Your task to perform on an android device: Open network settings Image 0: 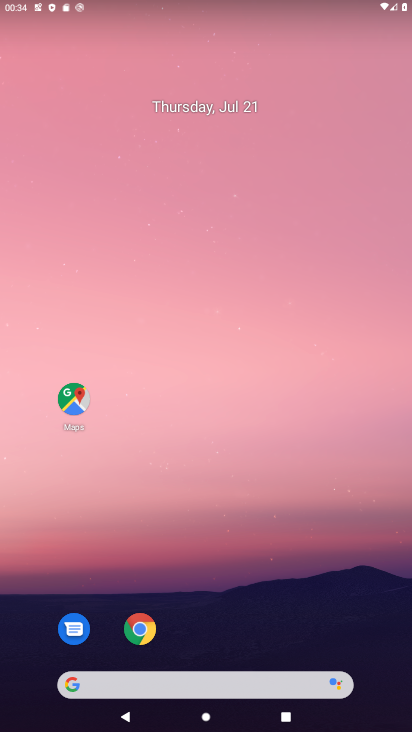
Step 0: drag from (340, 560) to (224, 40)
Your task to perform on an android device: Open network settings Image 1: 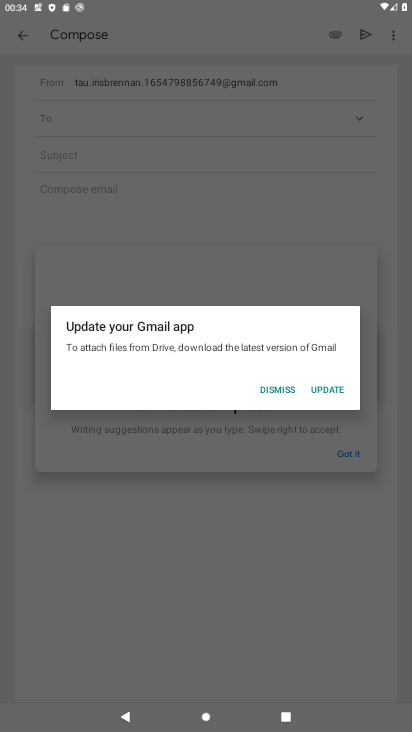
Step 1: press home button
Your task to perform on an android device: Open network settings Image 2: 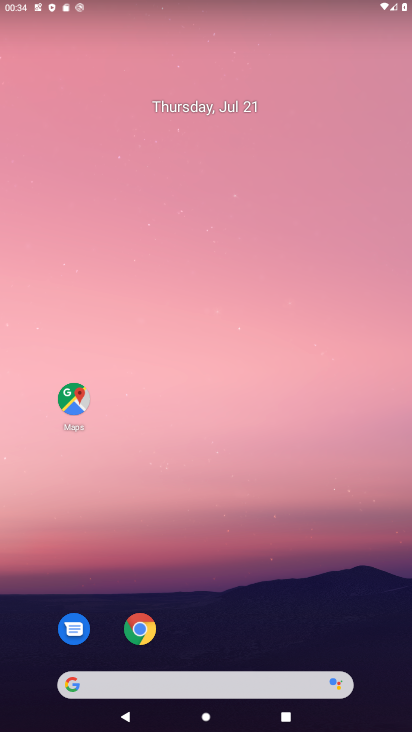
Step 2: click (283, 88)
Your task to perform on an android device: Open network settings Image 3: 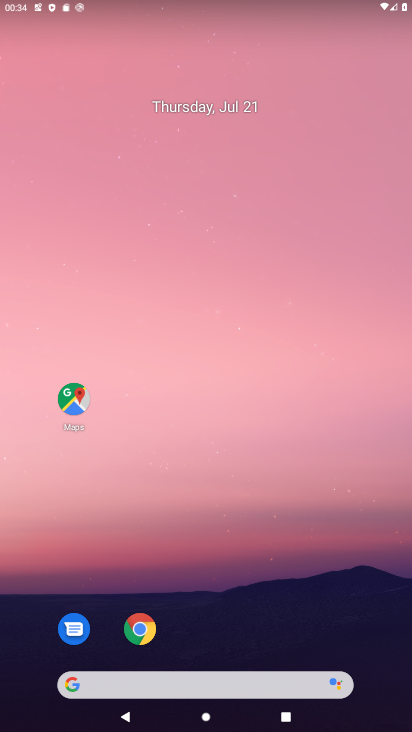
Step 3: drag from (325, 630) to (276, 83)
Your task to perform on an android device: Open network settings Image 4: 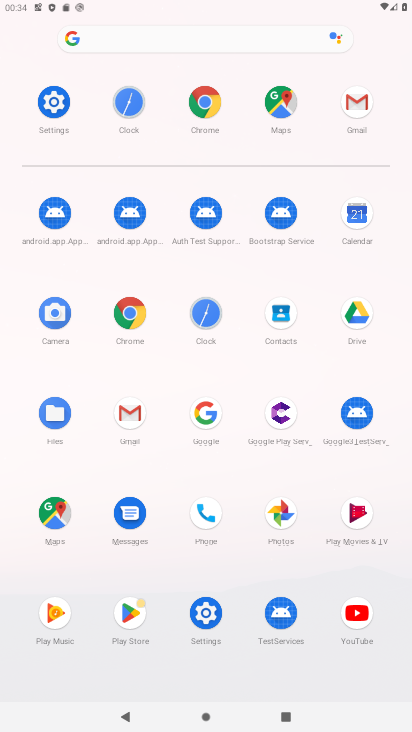
Step 4: click (52, 98)
Your task to perform on an android device: Open network settings Image 5: 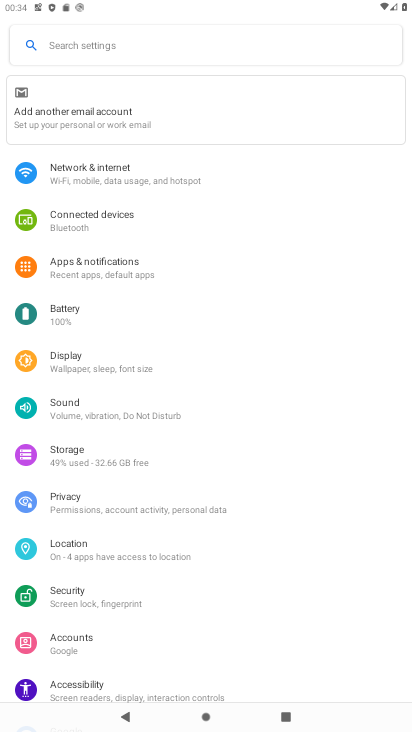
Step 5: click (117, 182)
Your task to perform on an android device: Open network settings Image 6: 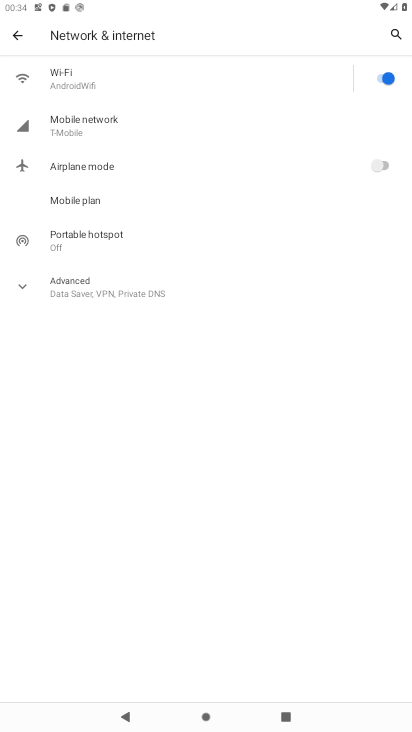
Step 6: task complete